Your task to perform on an android device: add a contact in the contacts app Image 0: 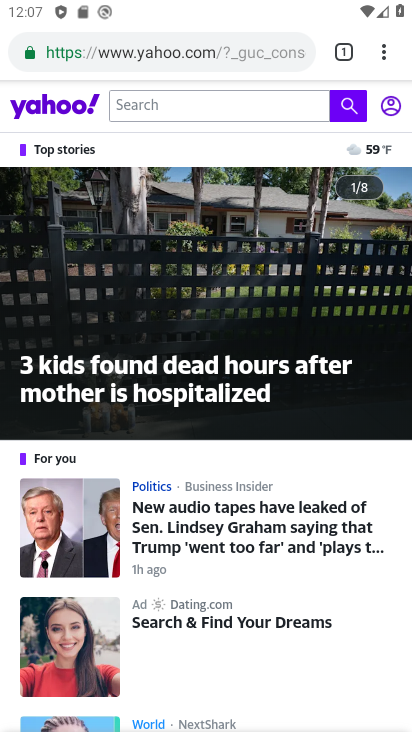
Step 0: press home button
Your task to perform on an android device: add a contact in the contacts app Image 1: 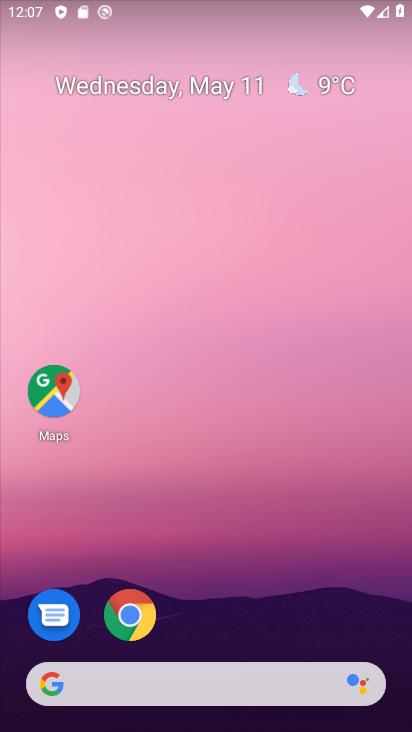
Step 1: drag from (383, 609) to (250, 204)
Your task to perform on an android device: add a contact in the contacts app Image 2: 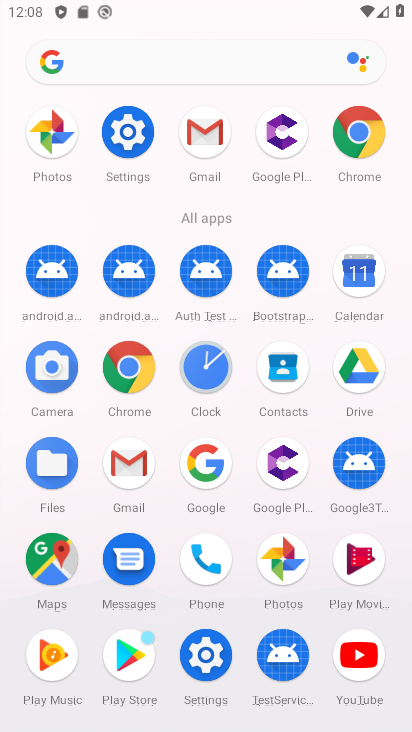
Step 2: click (281, 383)
Your task to perform on an android device: add a contact in the contacts app Image 3: 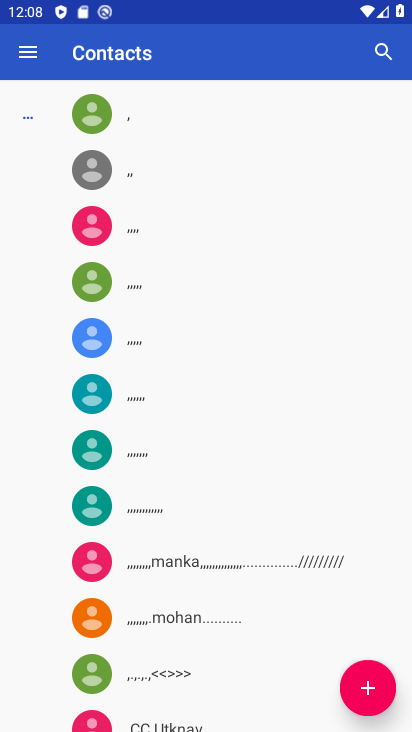
Step 3: click (366, 704)
Your task to perform on an android device: add a contact in the contacts app Image 4: 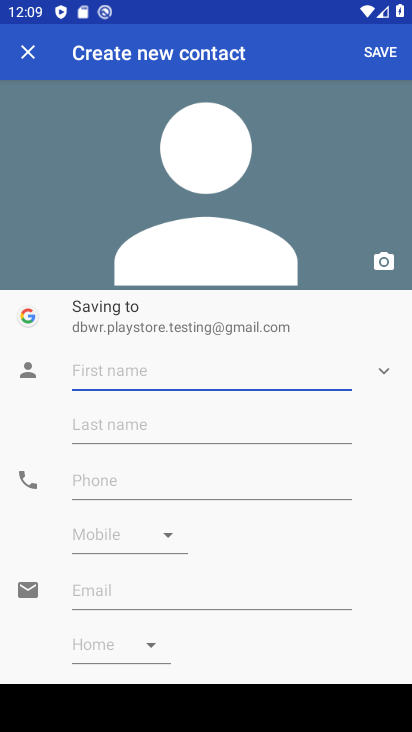
Step 4: type "sdsv"
Your task to perform on an android device: add a contact in the contacts app Image 5: 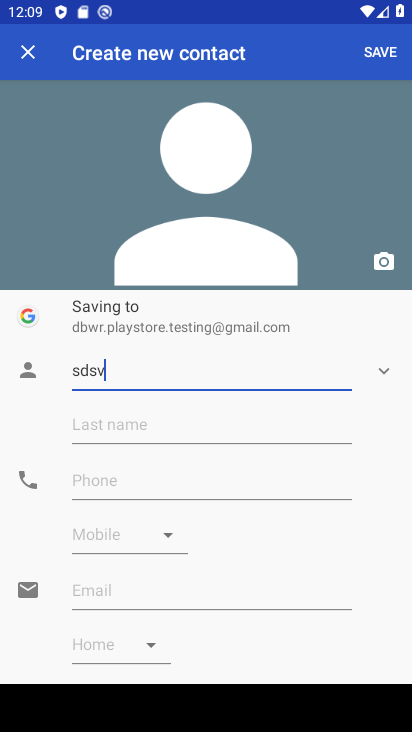
Step 5: click (217, 416)
Your task to perform on an android device: add a contact in the contacts app Image 6: 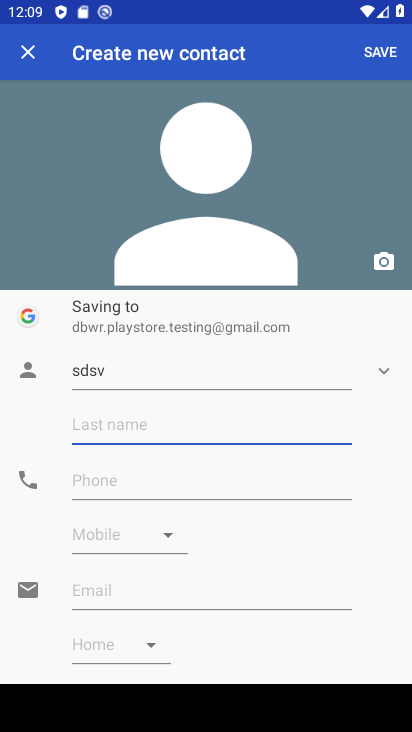
Step 6: type "xdcs"
Your task to perform on an android device: add a contact in the contacts app Image 7: 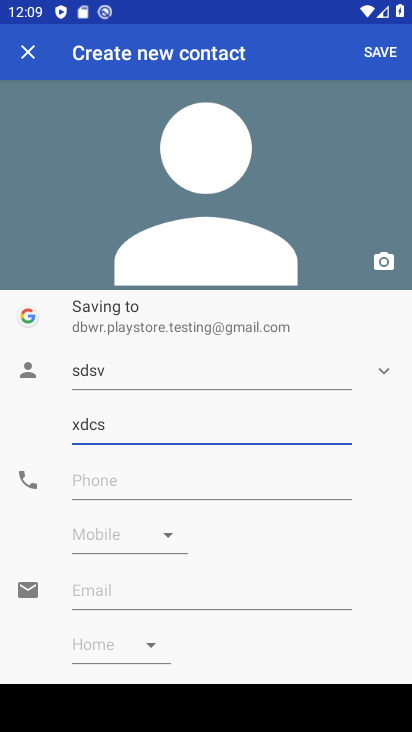
Step 7: click (287, 477)
Your task to perform on an android device: add a contact in the contacts app Image 8: 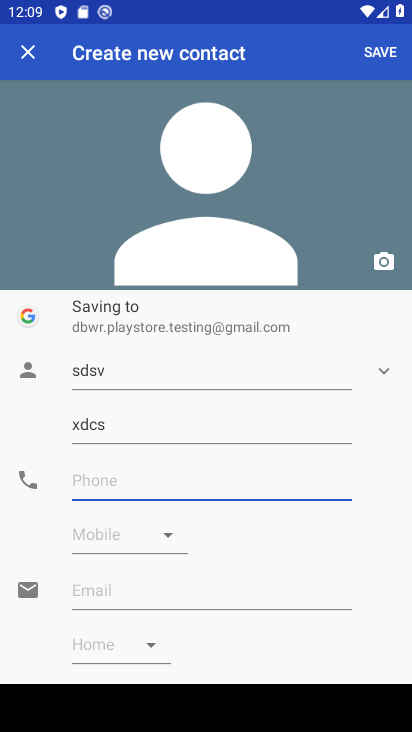
Step 8: type "3423452353"
Your task to perform on an android device: add a contact in the contacts app Image 9: 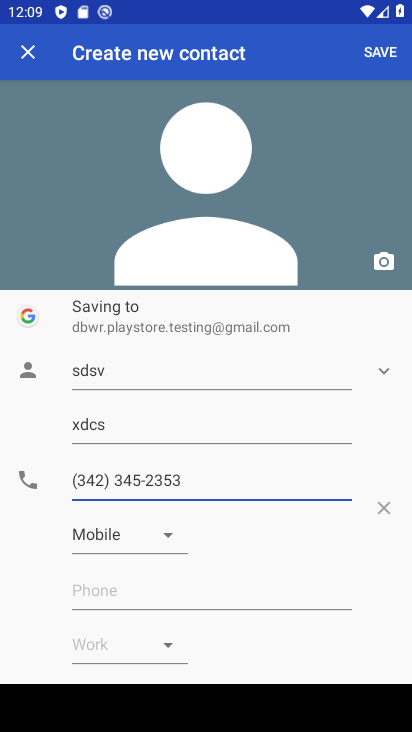
Step 9: click (378, 40)
Your task to perform on an android device: add a contact in the contacts app Image 10: 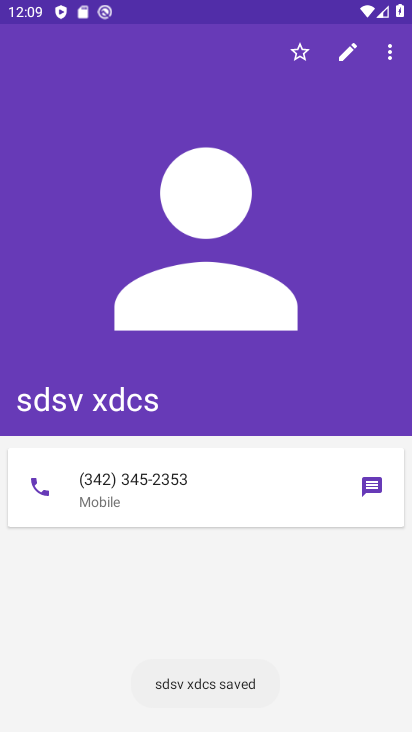
Step 10: task complete